Your task to perform on an android device: turn on the 24-hour format for clock Image 0: 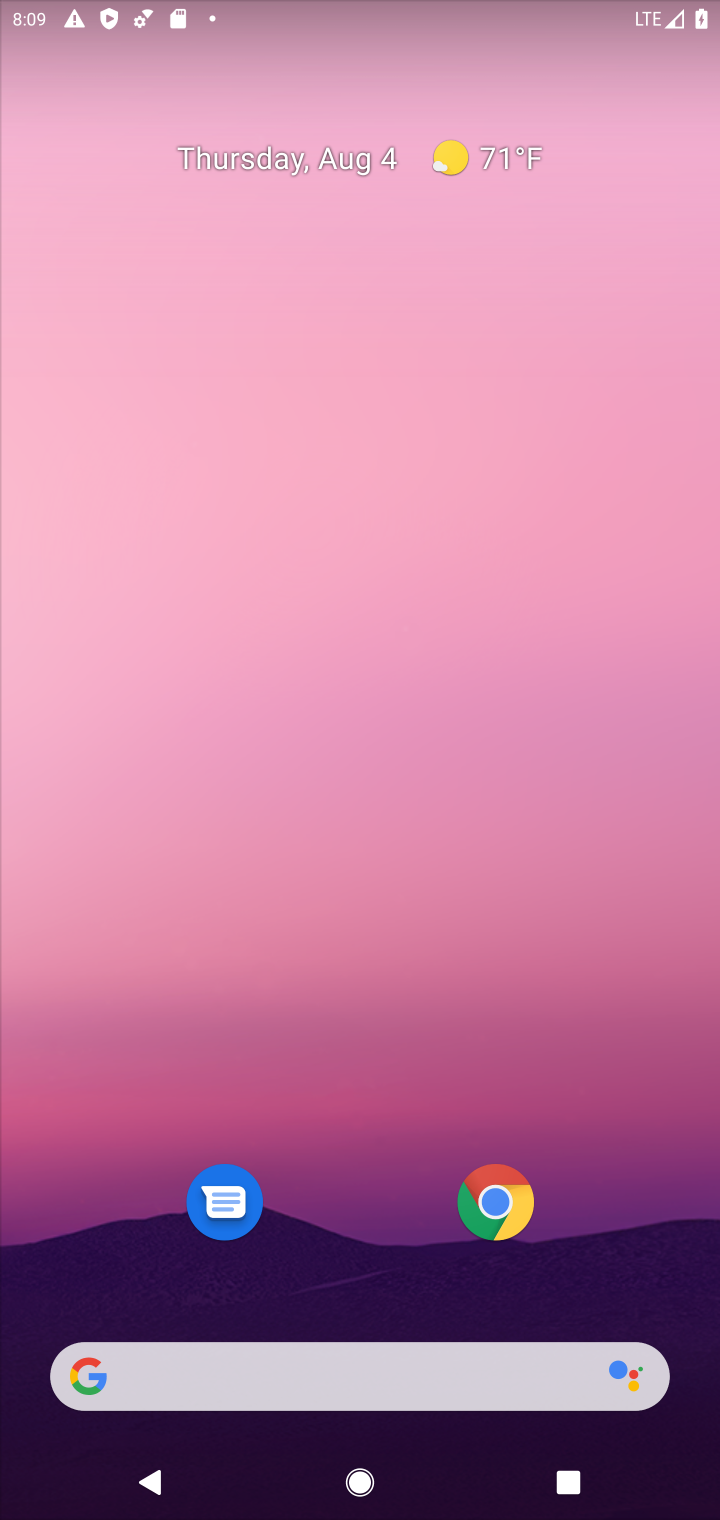
Step 0: drag from (395, 1105) to (402, 308)
Your task to perform on an android device: turn on the 24-hour format for clock Image 1: 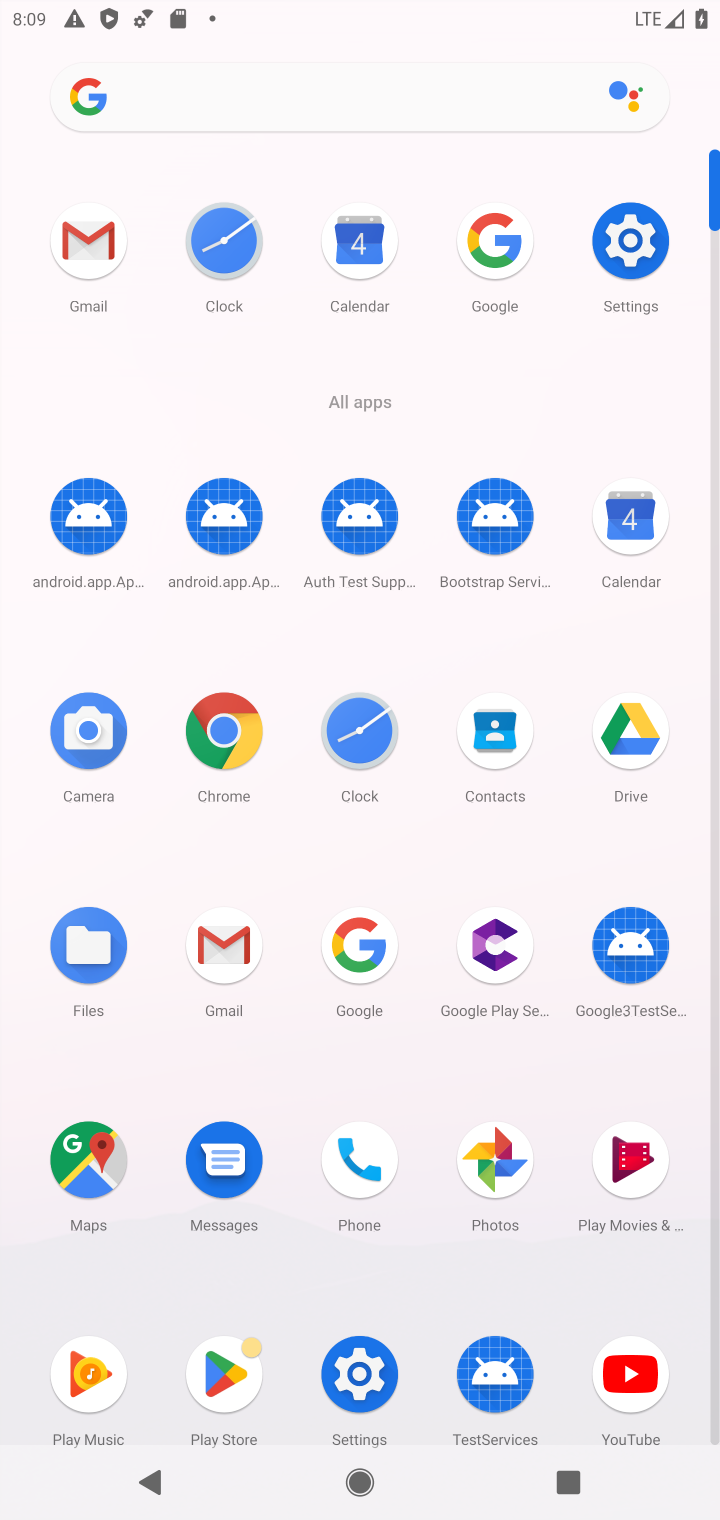
Step 1: click (360, 720)
Your task to perform on an android device: turn on the 24-hour format for clock Image 2: 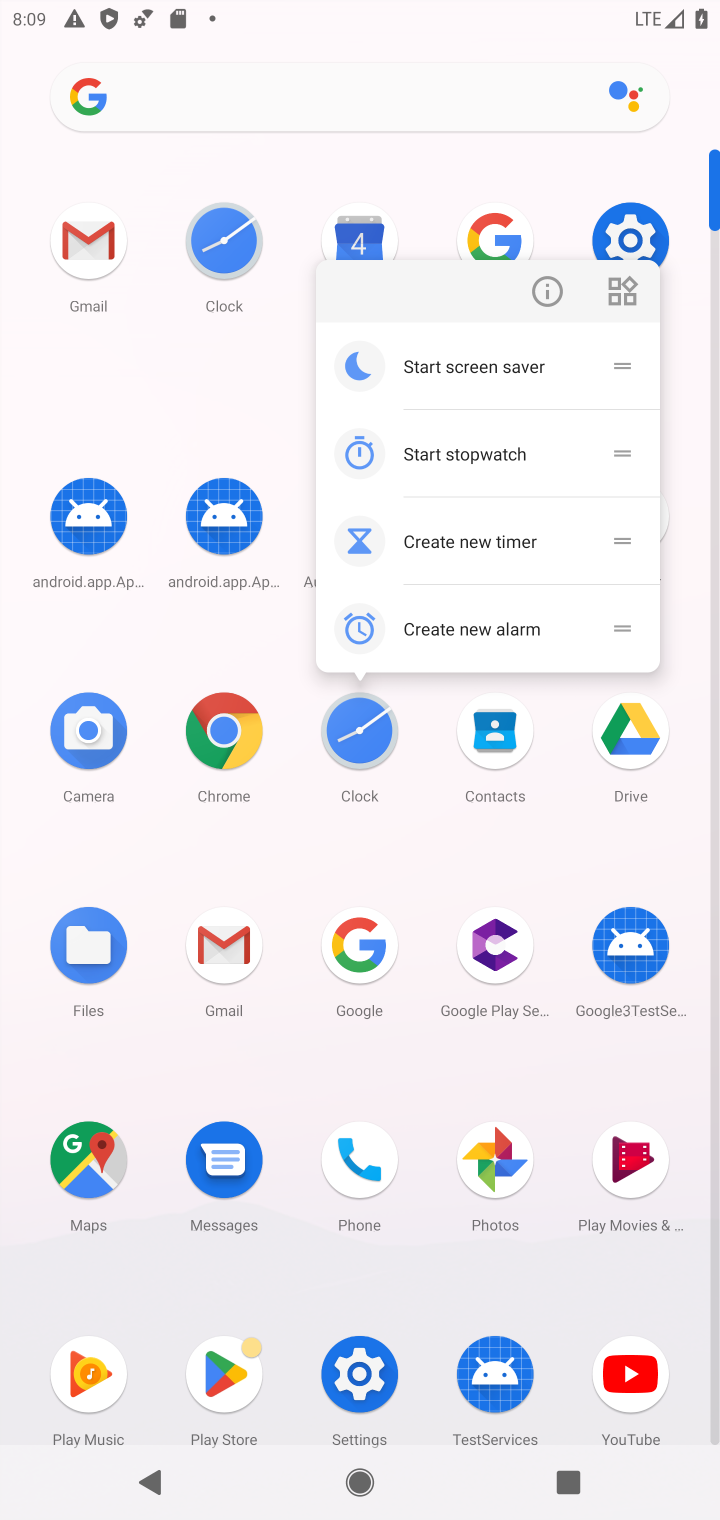
Step 2: click (360, 720)
Your task to perform on an android device: turn on the 24-hour format for clock Image 3: 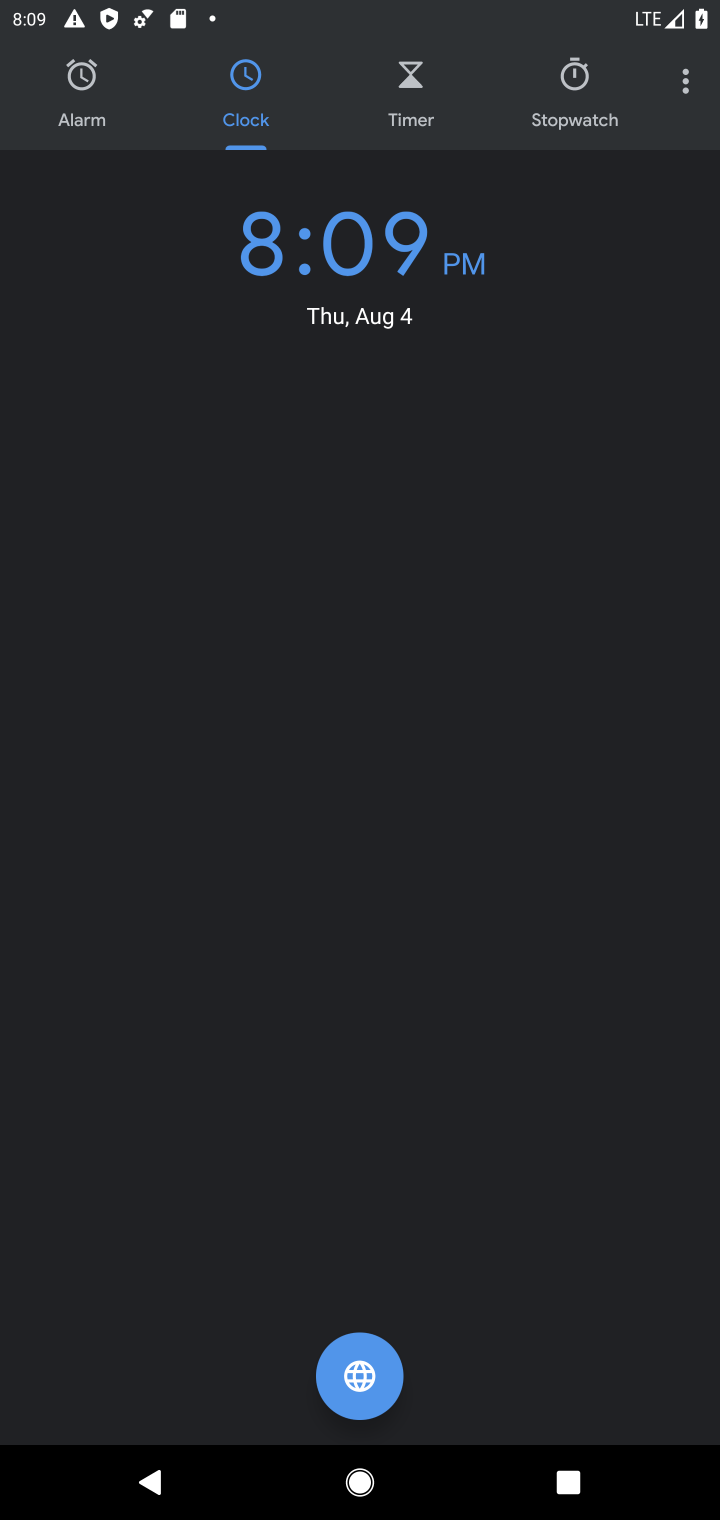
Step 3: click (681, 58)
Your task to perform on an android device: turn on the 24-hour format for clock Image 4: 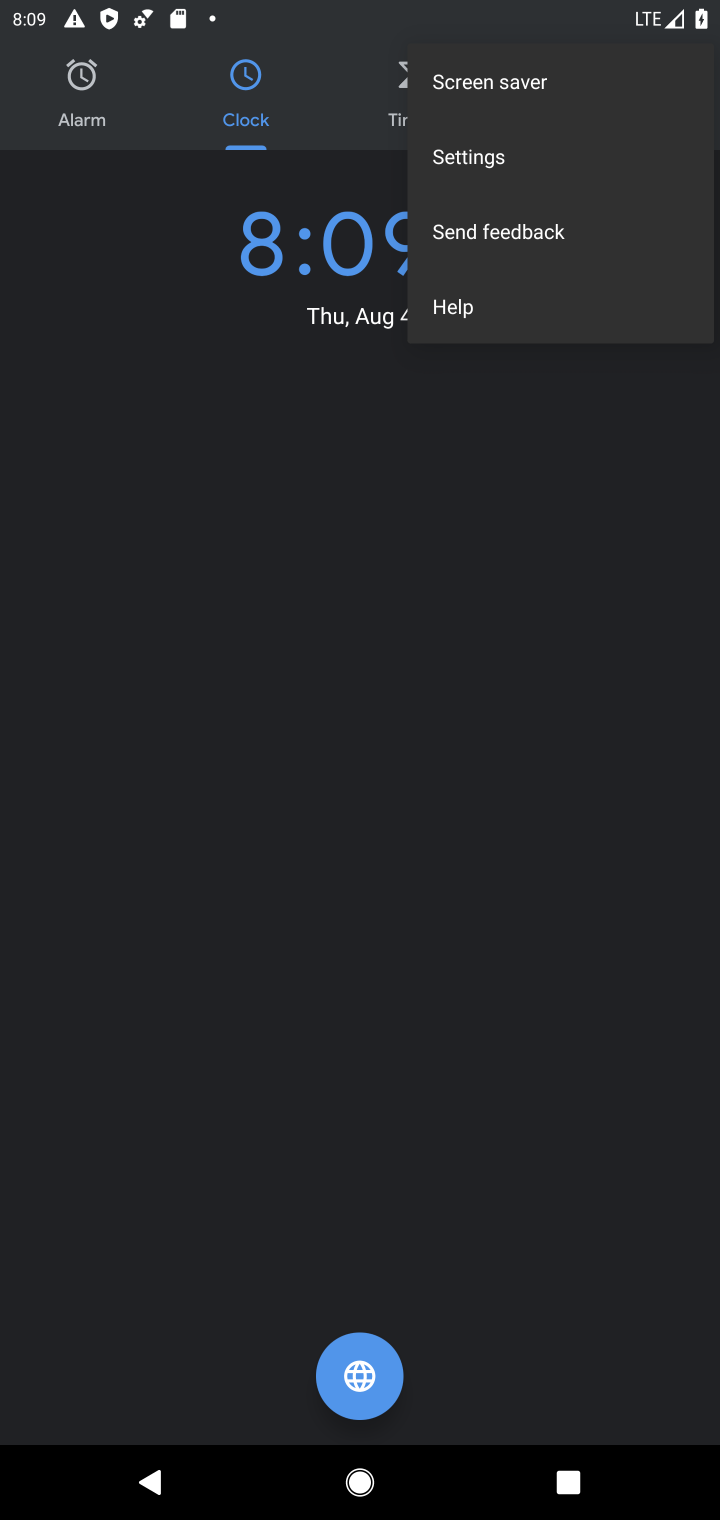
Step 4: click (535, 139)
Your task to perform on an android device: turn on the 24-hour format for clock Image 5: 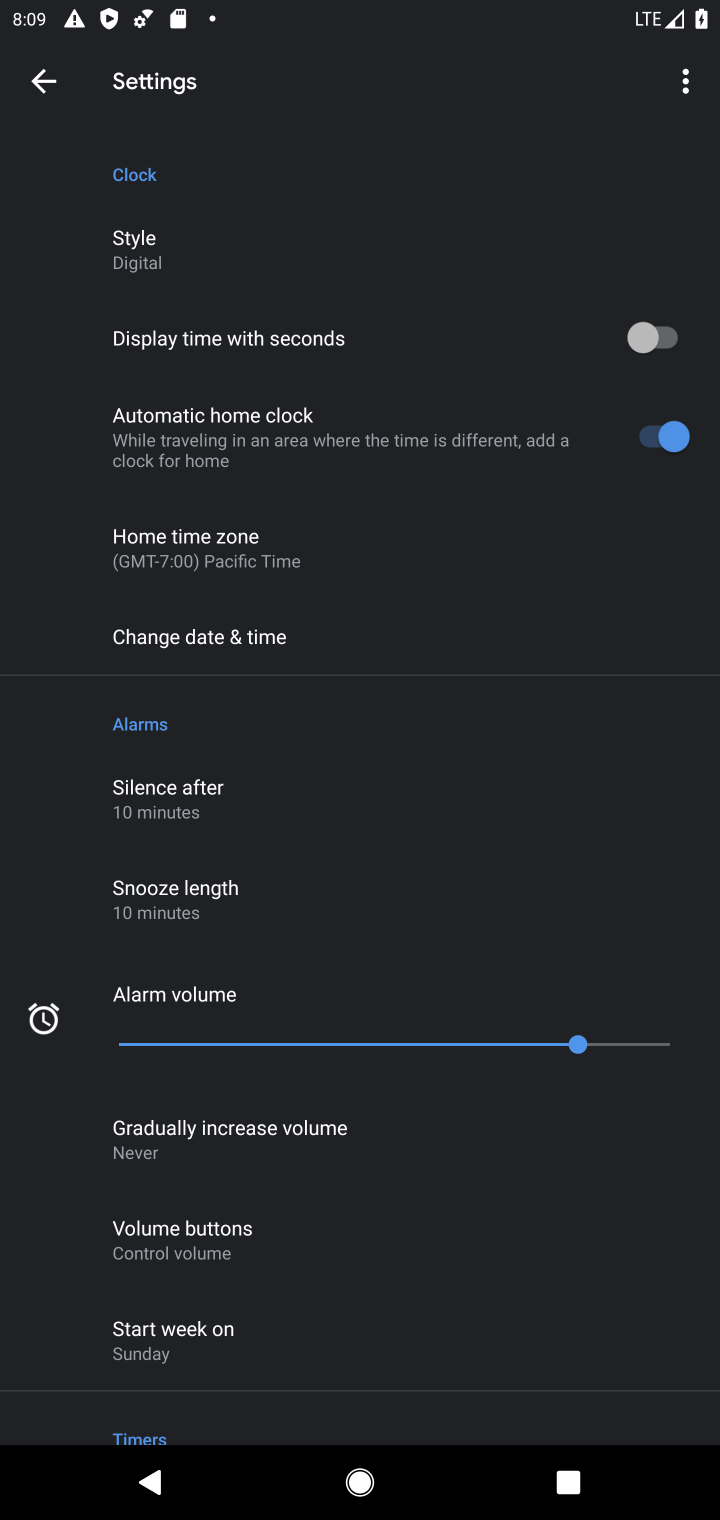
Step 5: click (268, 655)
Your task to perform on an android device: turn on the 24-hour format for clock Image 6: 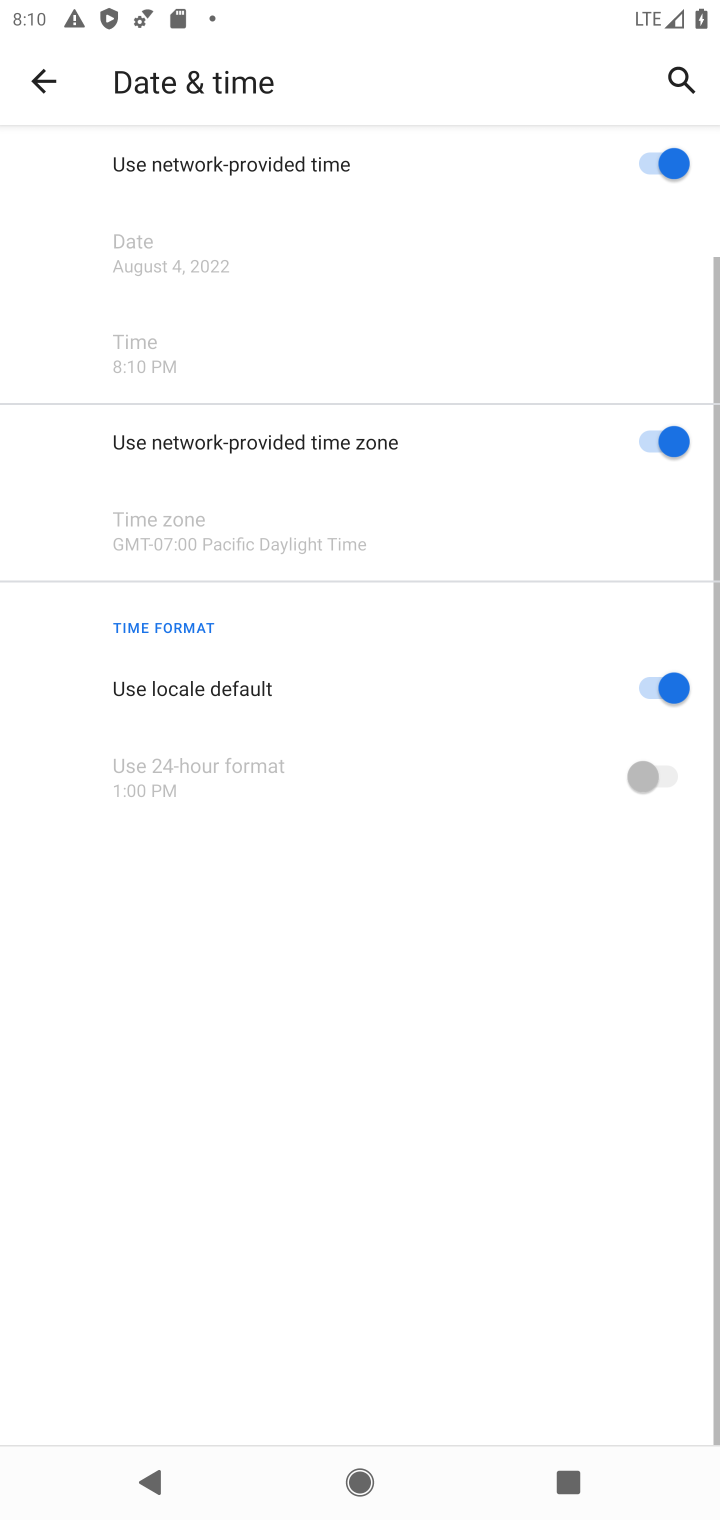
Step 6: click (653, 676)
Your task to perform on an android device: turn on the 24-hour format for clock Image 7: 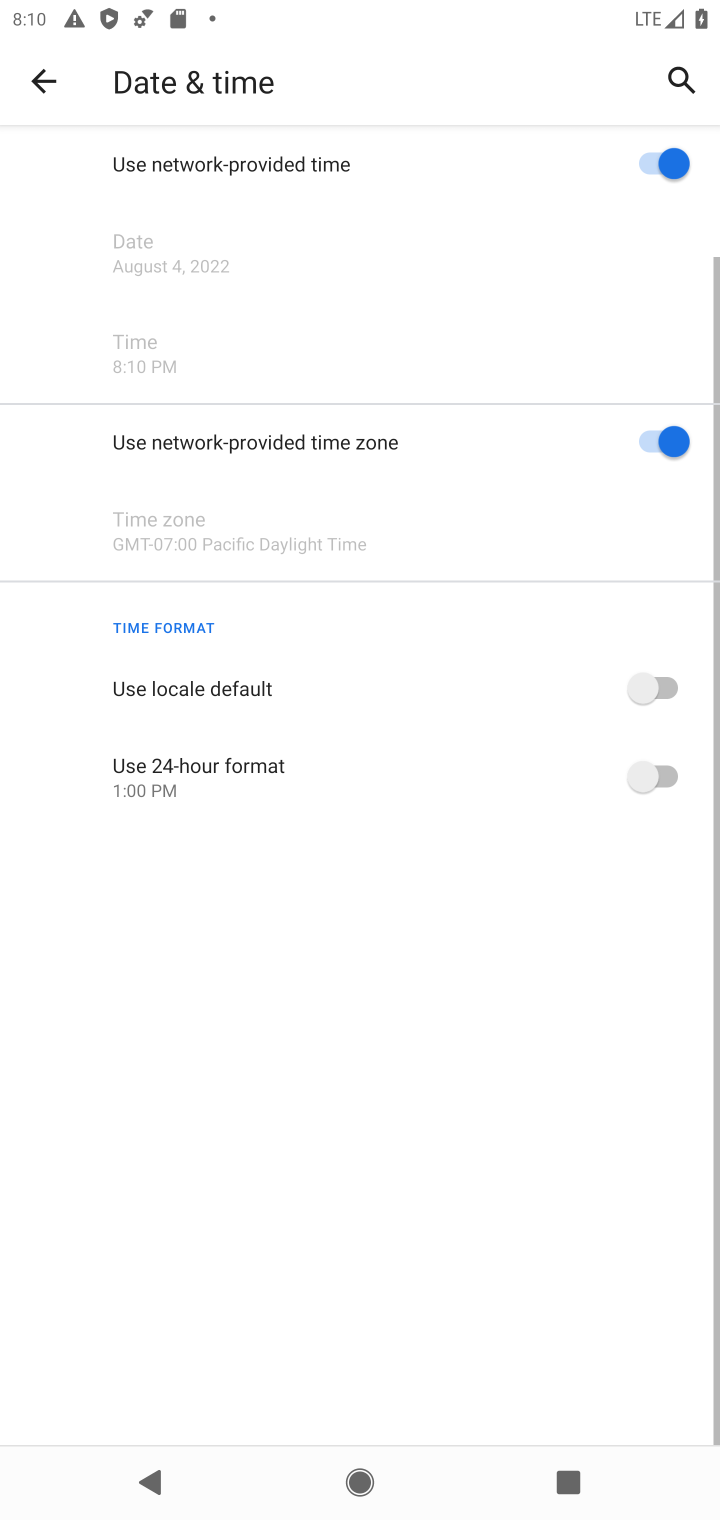
Step 7: click (681, 784)
Your task to perform on an android device: turn on the 24-hour format for clock Image 8: 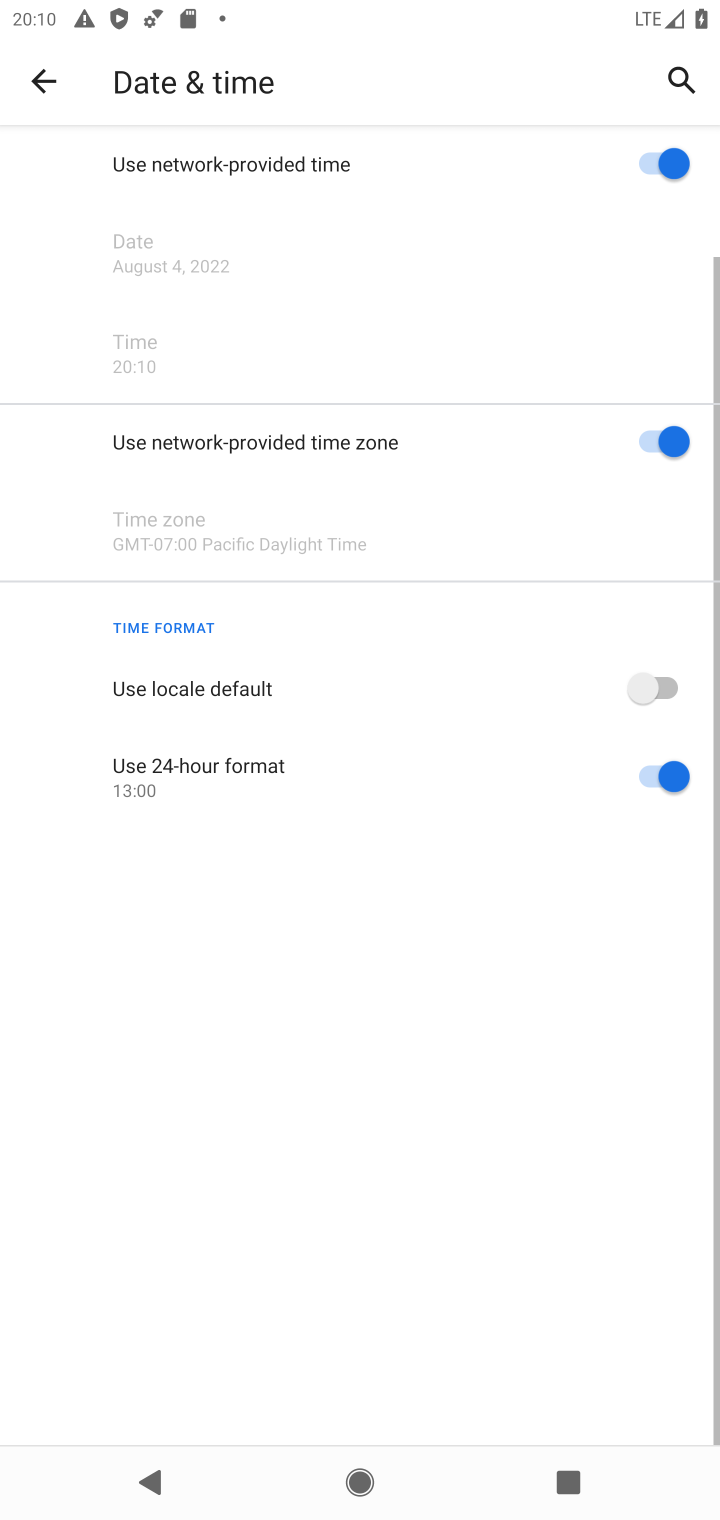
Step 8: task complete